Your task to perform on an android device: turn off location Image 0: 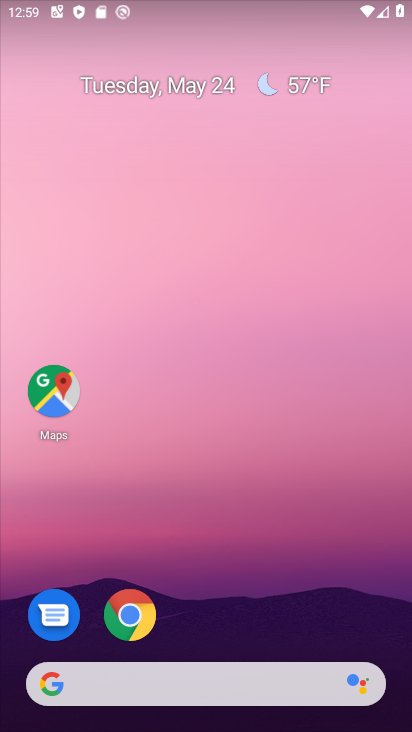
Step 0: drag from (173, 650) to (248, 1)
Your task to perform on an android device: turn off location Image 1: 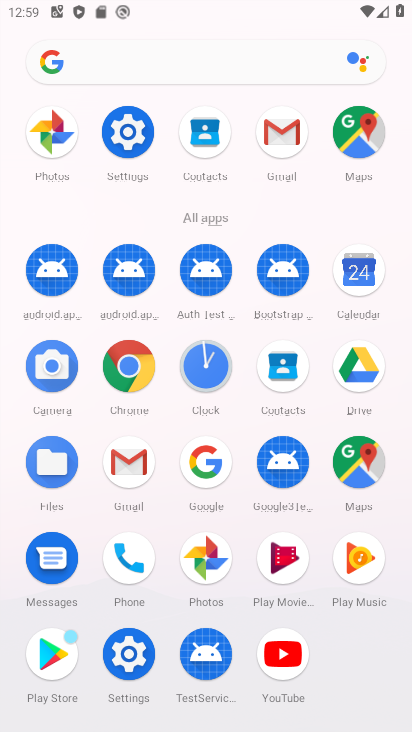
Step 1: click (126, 134)
Your task to perform on an android device: turn off location Image 2: 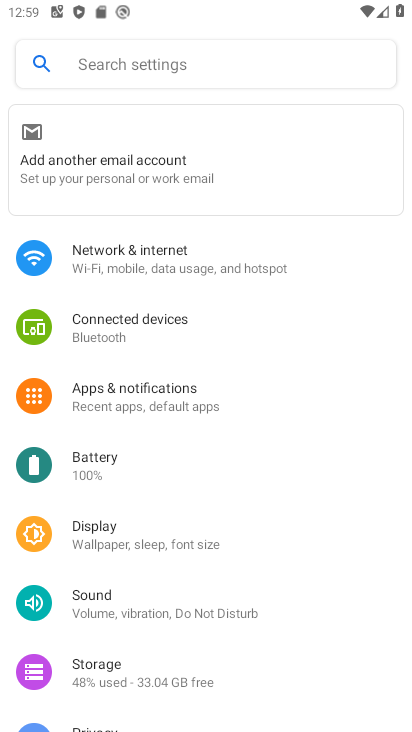
Step 2: drag from (118, 657) to (160, 248)
Your task to perform on an android device: turn off location Image 3: 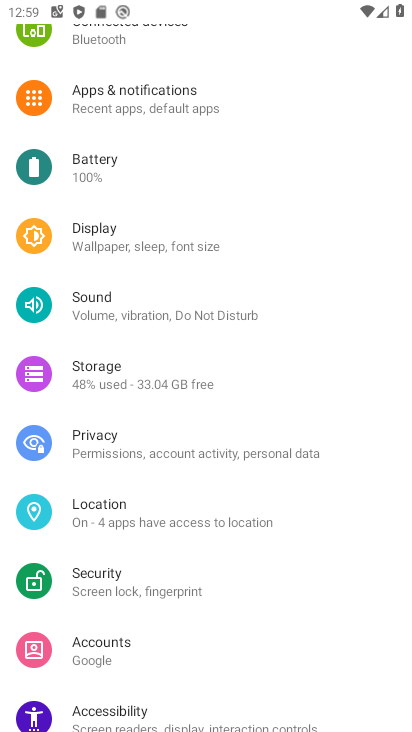
Step 3: click (120, 521)
Your task to perform on an android device: turn off location Image 4: 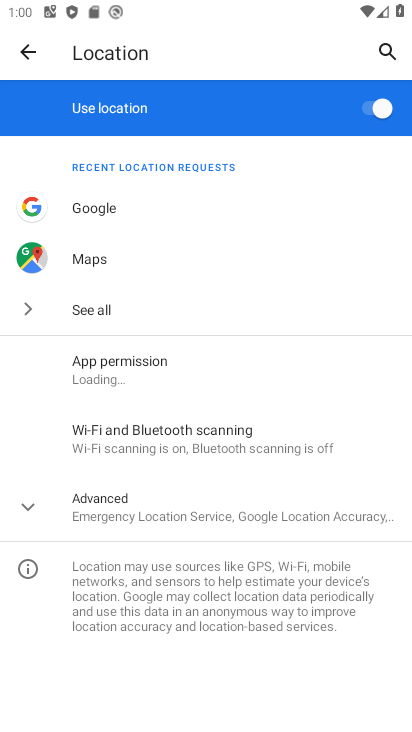
Step 4: click (141, 521)
Your task to perform on an android device: turn off location Image 5: 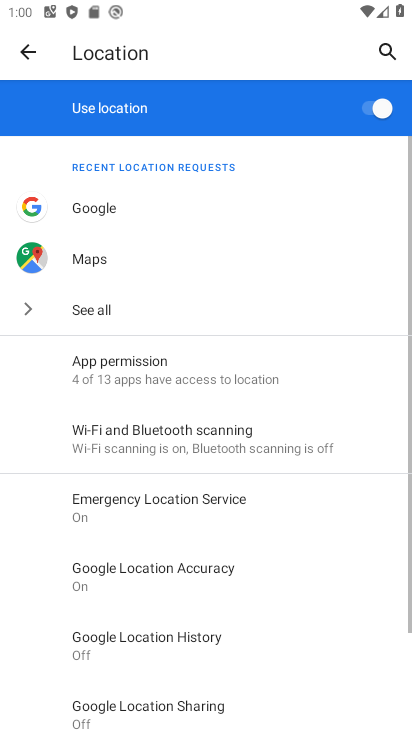
Step 5: click (376, 100)
Your task to perform on an android device: turn off location Image 6: 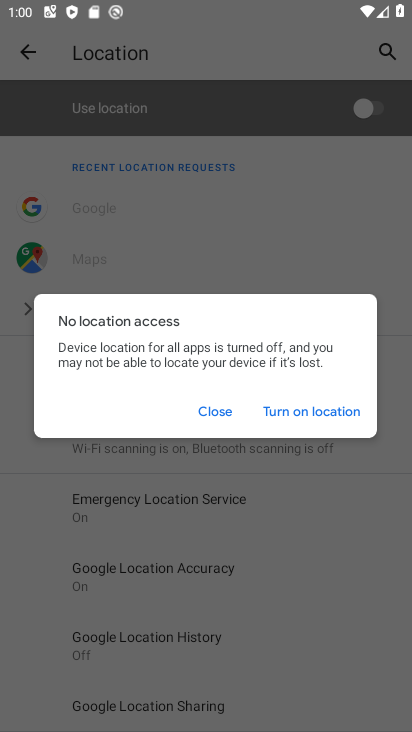
Step 6: click (219, 412)
Your task to perform on an android device: turn off location Image 7: 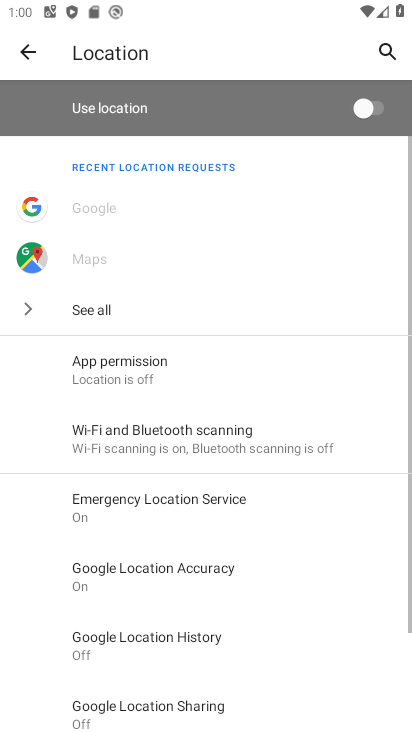
Step 7: task complete